Your task to perform on an android device: see sites visited before in the chrome app Image 0: 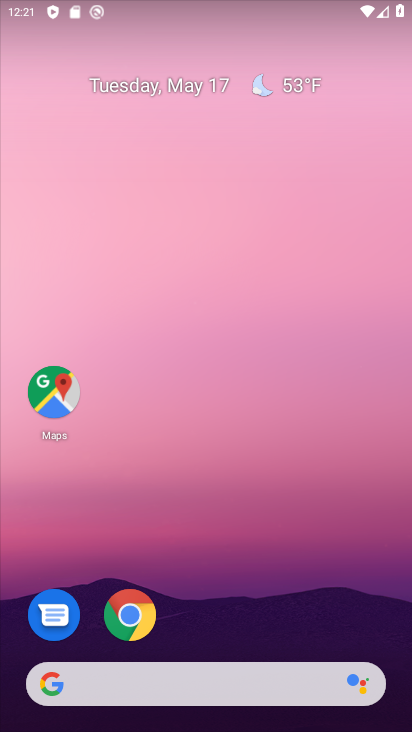
Step 0: click (156, 625)
Your task to perform on an android device: see sites visited before in the chrome app Image 1: 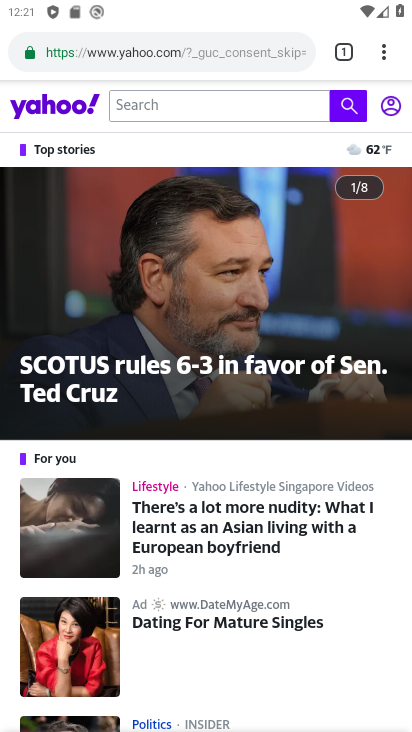
Step 1: click (392, 51)
Your task to perform on an android device: see sites visited before in the chrome app Image 2: 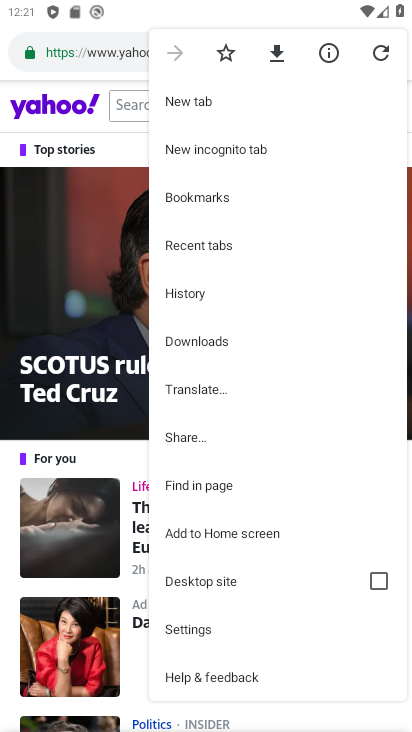
Step 2: click (247, 241)
Your task to perform on an android device: see sites visited before in the chrome app Image 3: 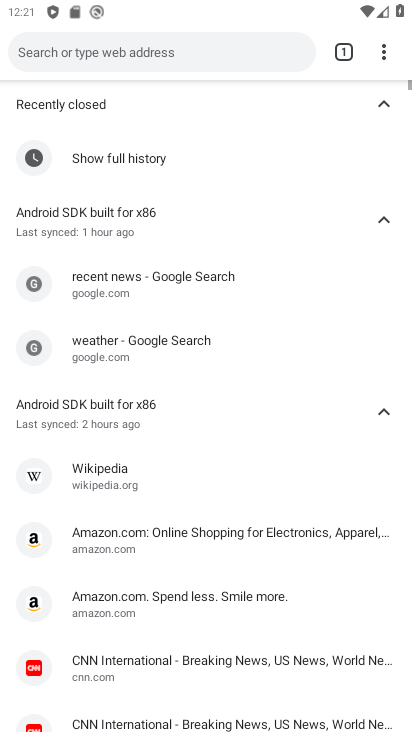
Step 3: task complete